Your task to perform on an android device: Open Wikipedia Image 0: 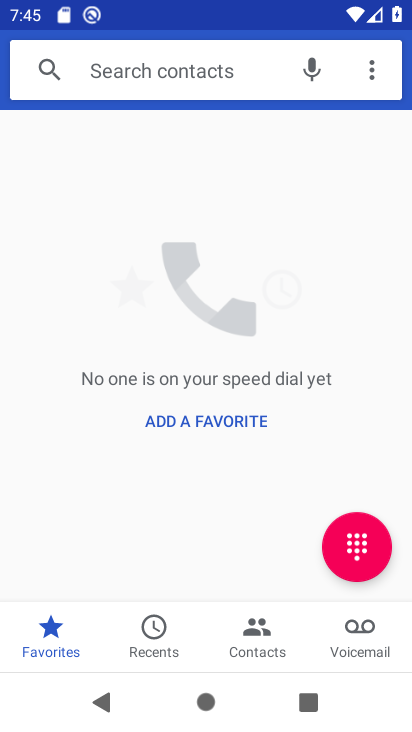
Step 0: press home button
Your task to perform on an android device: Open Wikipedia Image 1: 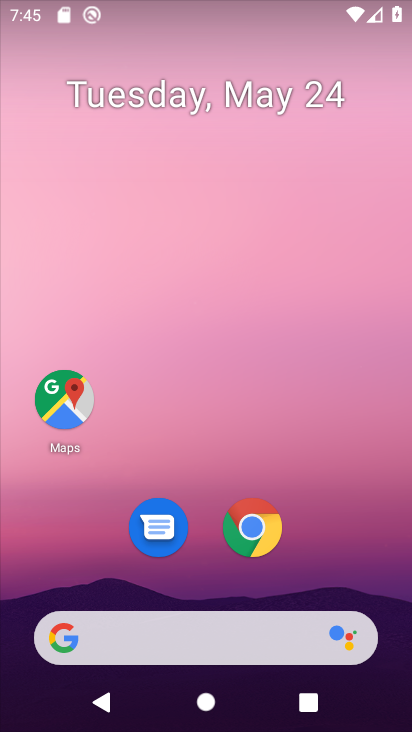
Step 1: click (245, 525)
Your task to perform on an android device: Open Wikipedia Image 2: 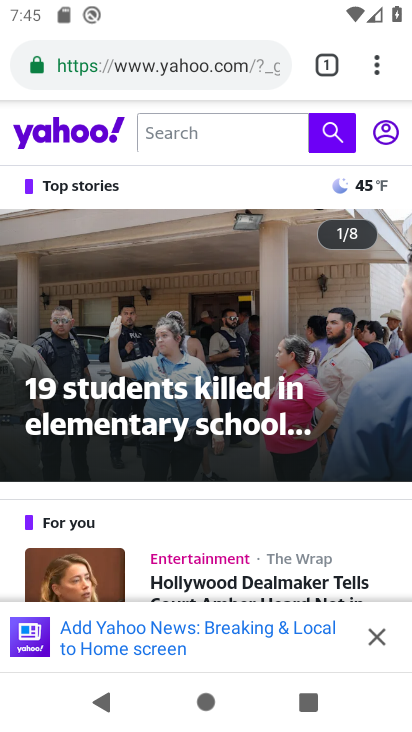
Step 2: click (225, 68)
Your task to perform on an android device: Open Wikipedia Image 3: 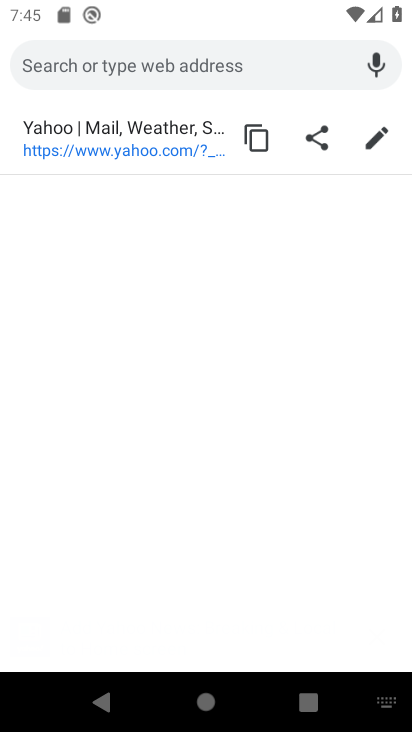
Step 3: type "wikipedia"
Your task to perform on an android device: Open Wikipedia Image 4: 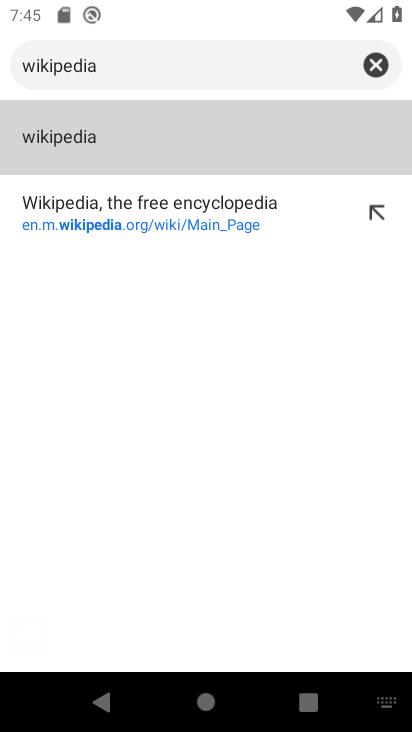
Step 4: click (71, 130)
Your task to perform on an android device: Open Wikipedia Image 5: 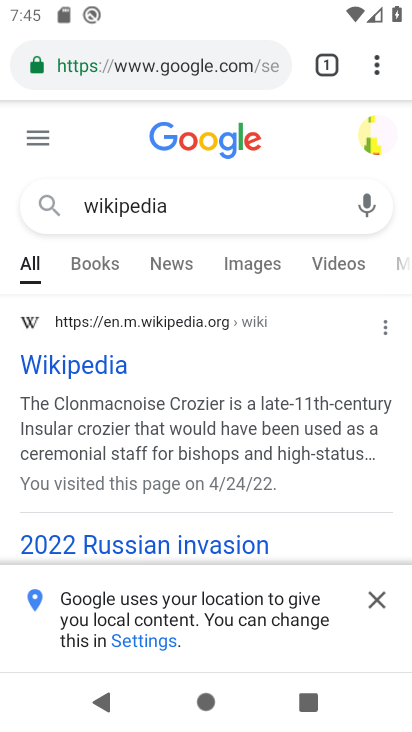
Step 5: click (87, 365)
Your task to perform on an android device: Open Wikipedia Image 6: 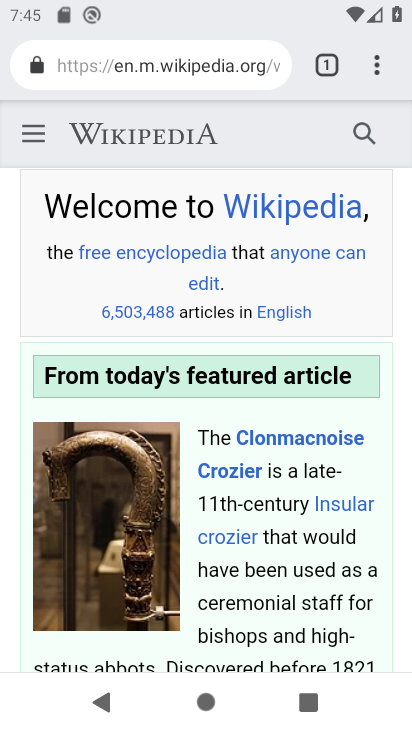
Step 6: task complete